Your task to perform on an android device: turn on airplane mode Image 0: 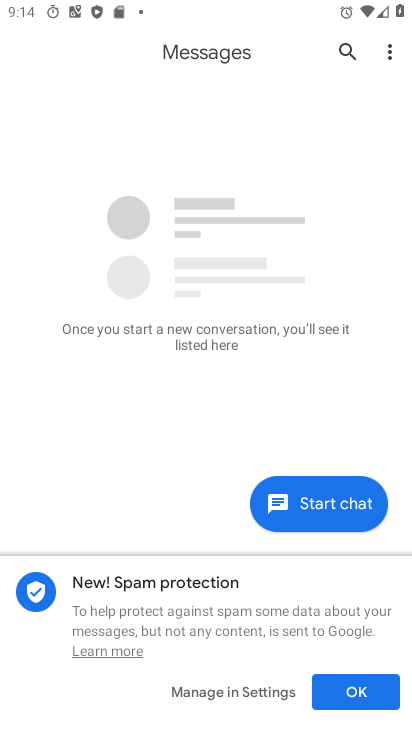
Step 0: press home button
Your task to perform on an android device: turn on airplane mode Image 1: 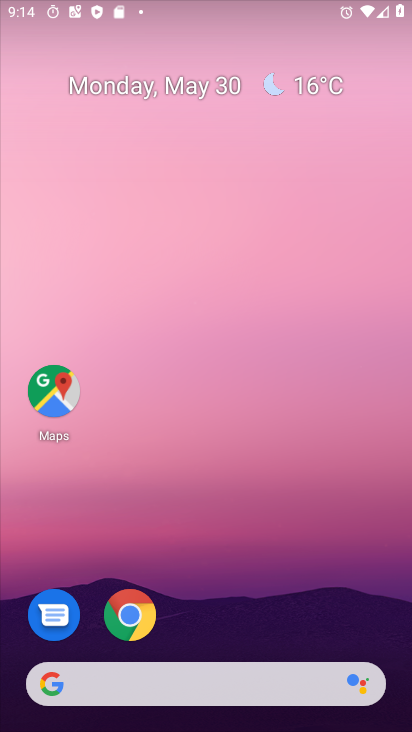
Step 1: drag from (322, 557) to (374, 62)
Your task to perform on an android device: turn on airplane mode Image 2: 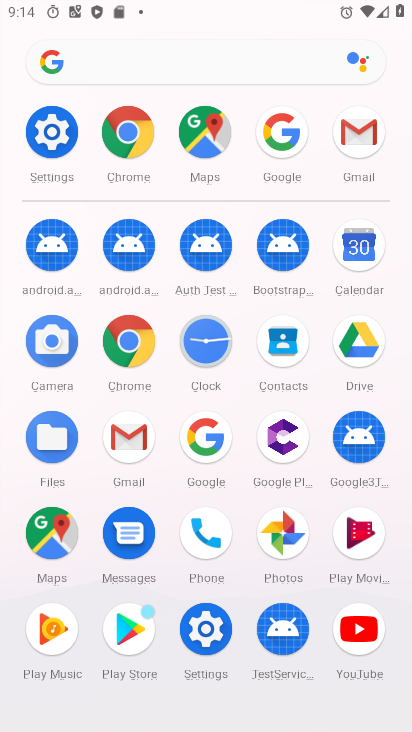
Step 2: click (54, 136)
Your task to perform on an android device: turn on airplane mode Image 3: 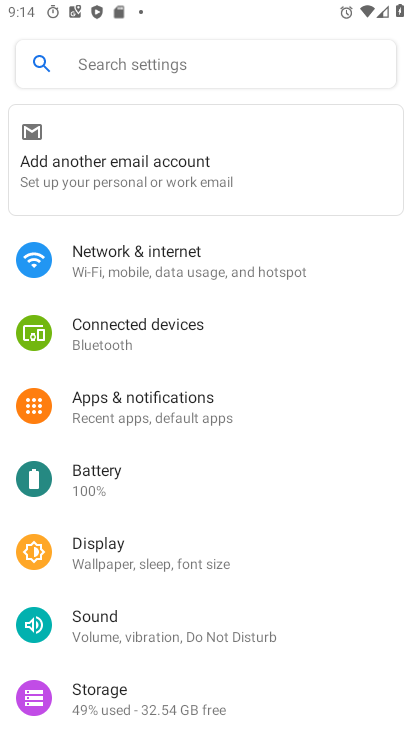
Step 3: click (122, 271)
Your task to perform on an android device: turn on airplane mode Image 4: 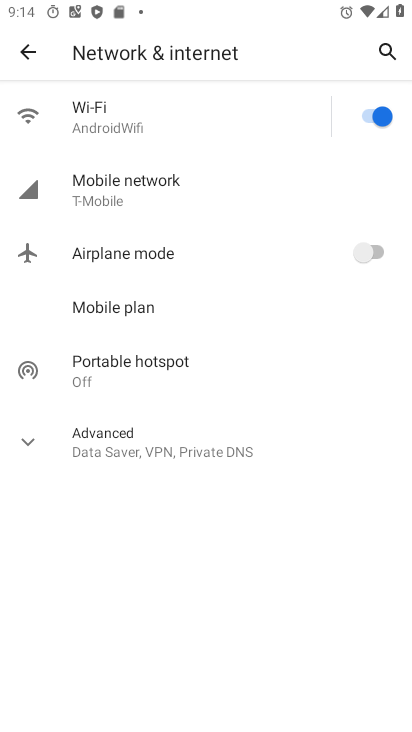
Step 4: click (367, 259)
Your task to perform on an android device: turn on airplane mode Image 5: 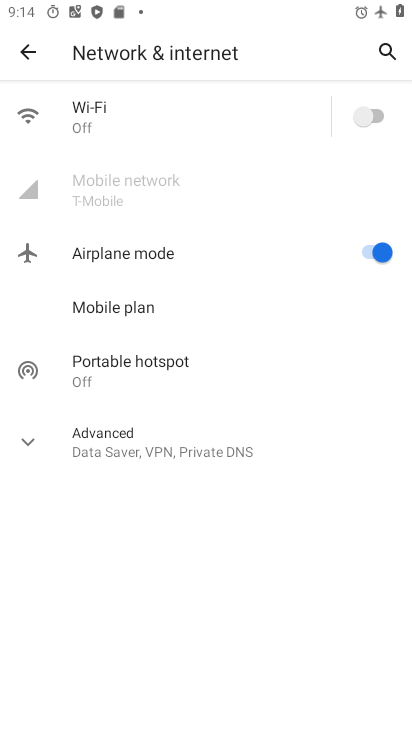
Step 5: task complete